Your task to perform on an android device: Open Maps and search for coffee Image 0: 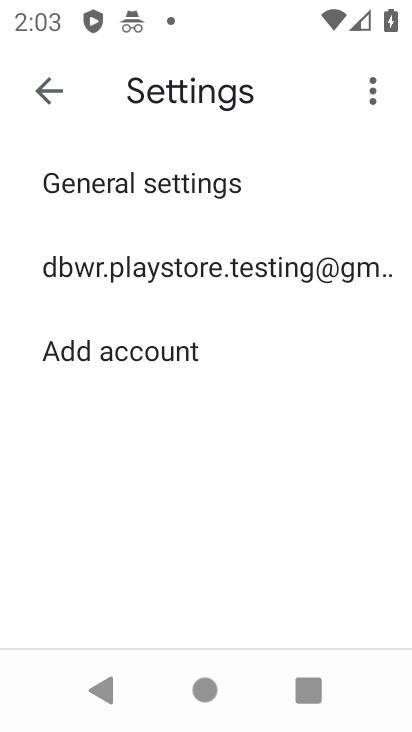
Step 0: press home button
Your task to perform on an android device: Open Maps and search for coffee Image 1: 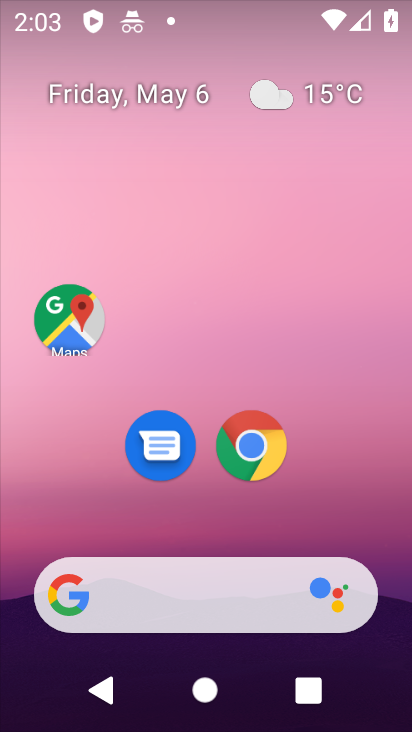
Step 1: drag from (374, 552) to (258, 4)
Your task to perform on an android device: Open Maps and search for coffee Image 2: 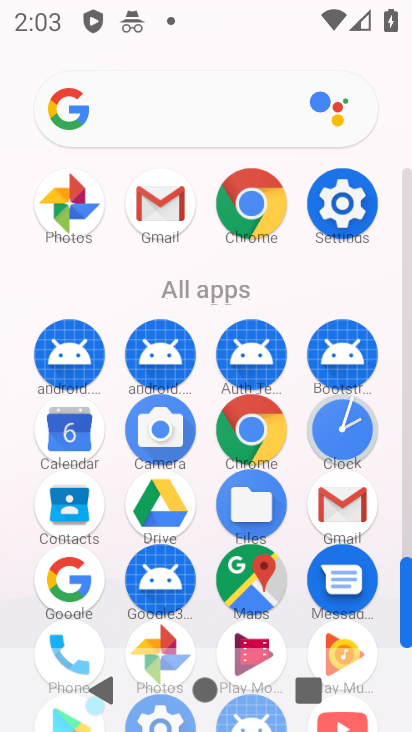
Step 2: click (263, 574)
Your task to perform on an android device: Open Maps and search for coffee Image 3: 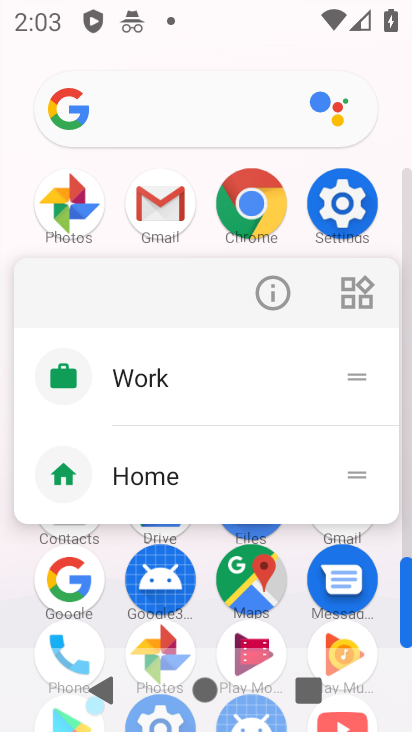
Step 3: click (330, 607)
Your task to perform on an android device: Open Maps and search for coffee Image 4: 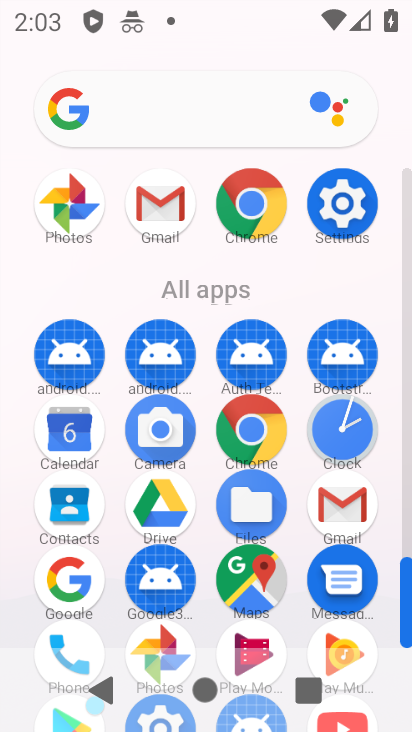
Step 4: click (265, 575)
Your task to perform on an android device: Open Maps and search for coffee Image 5: 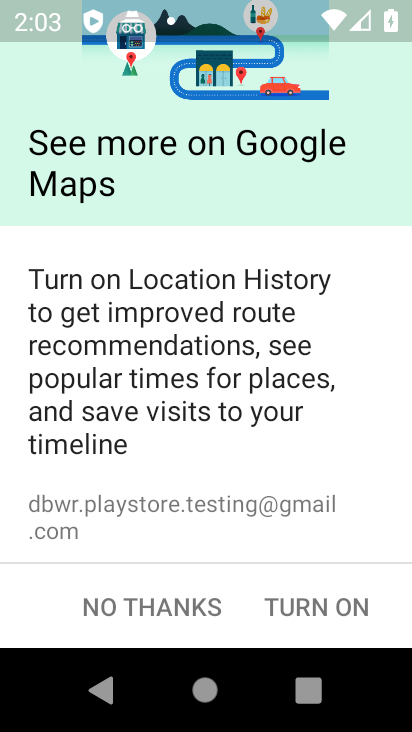
Step 5: click (153, 608)
Your task to perform on an android device: Open Maps and search for coffee Image 6: 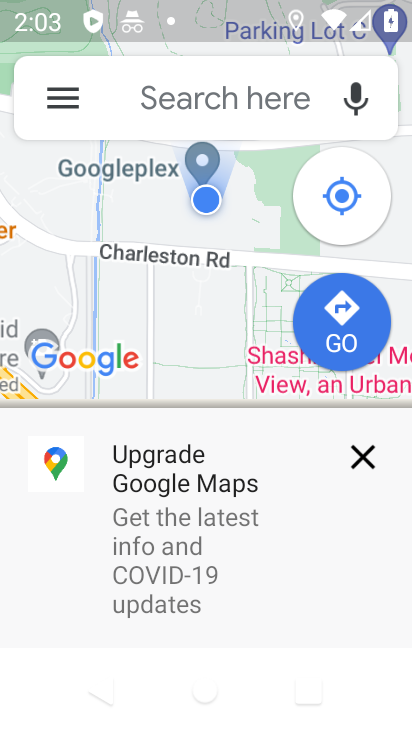
Step 6: click (139, 102)
Your task to perform on an android device: Open Maps and search for coffee Image 7: 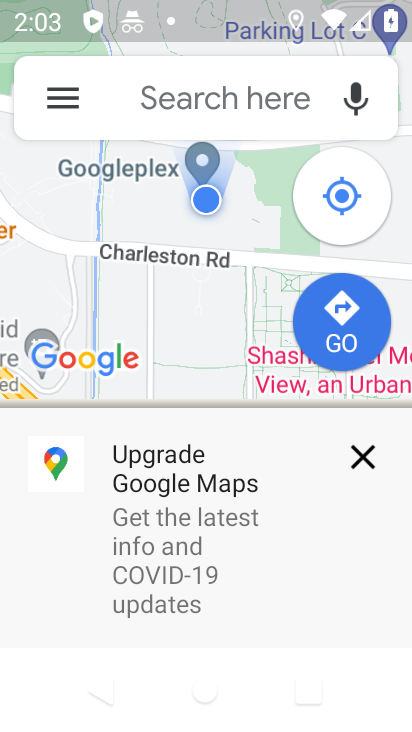
Step 7: click (139, 102)
Your task to perform on an android device: Open Maps and search for coffee Image 8: 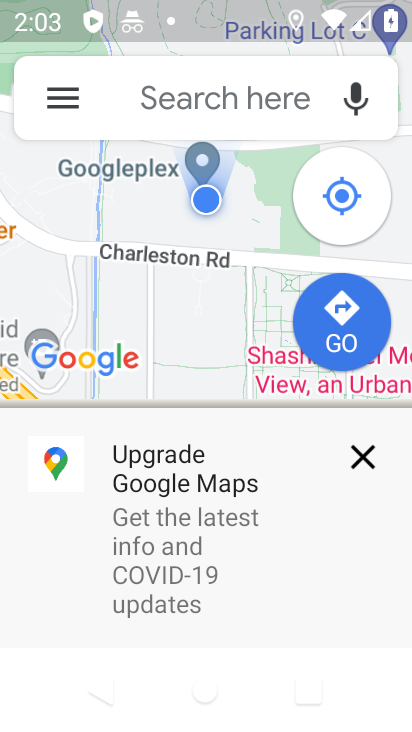
Step 8: click (225, 98)
Your task to perform on an android device: Open Maps and search for coffee Image 9: 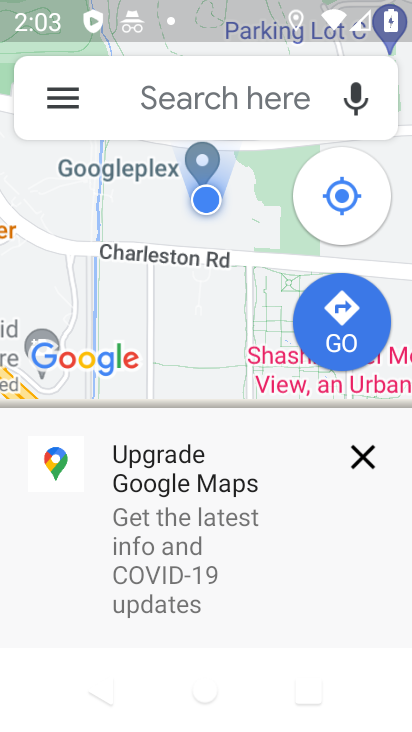
Step 9: click (127, 84)
Your task to perform on an android device: Open Maps and search for coffee Image 10: 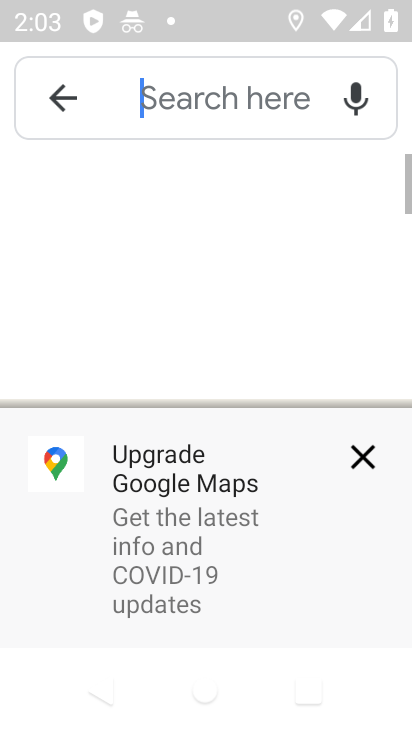
Step 10: click (167, 114)
Your task to perform on an android device: Open Maps and search for coffee Image 11: 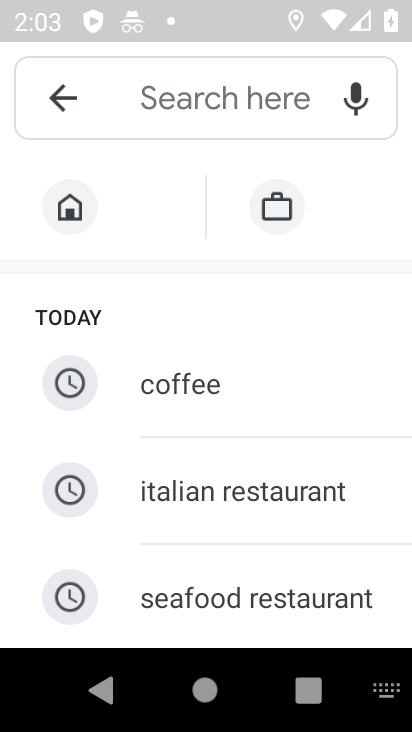
Step 11: click (184, 385)
Your task to perform on an android device: Open Maps and search for coffee Image 12: 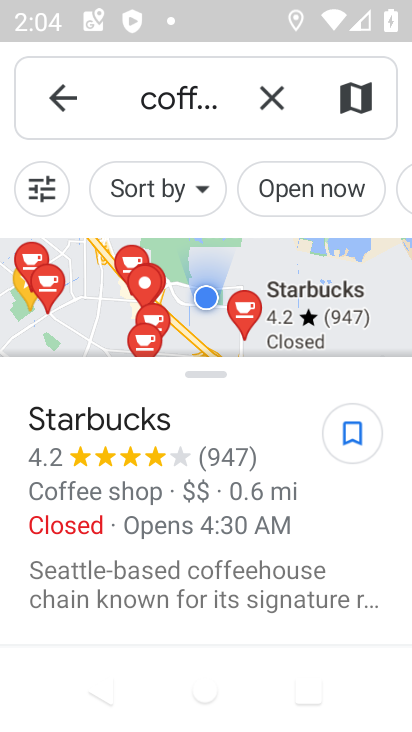
Step 12: task complete